Your task to perform on an android device: Clear the shopping cart on ebay. Image 0: 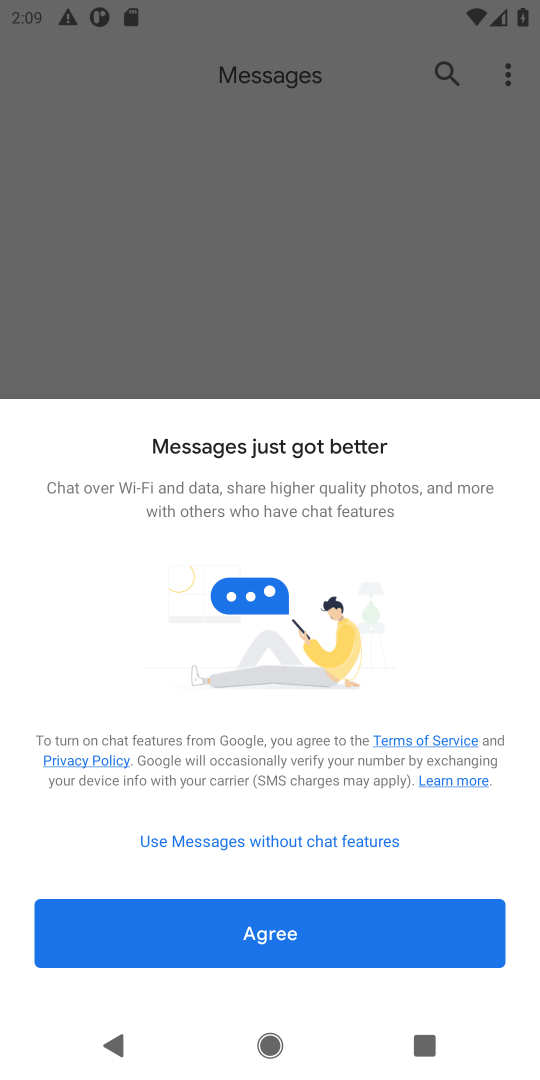
Step 0: press home button
Your task to perform on an android device: Clear the shopping cart on ebay. Image 1: 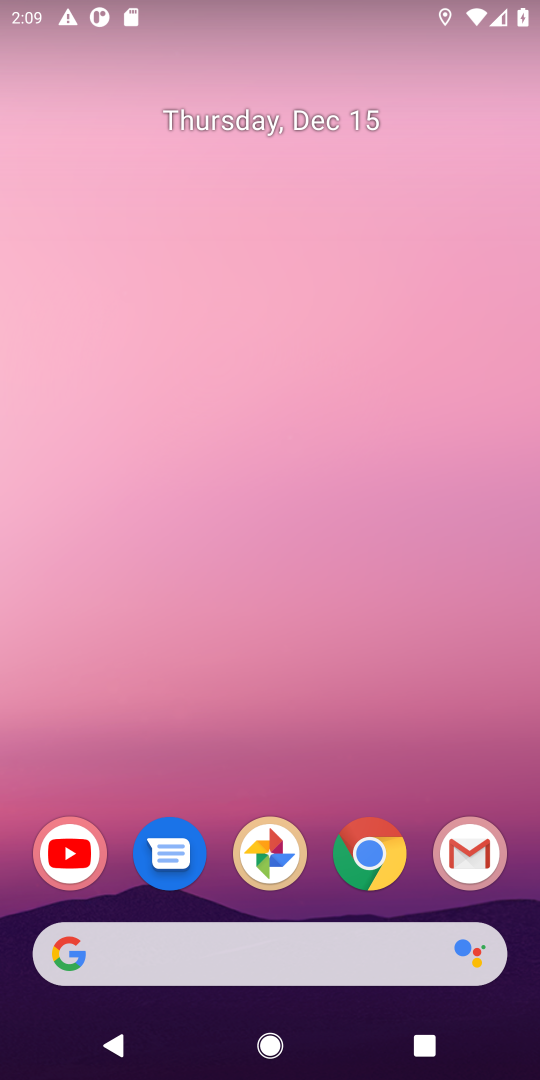
Step 1: drag from (337, 863) to (282, 410)
Your task to perform on an android device: Clear the shopping cart on ebay. Image 2: 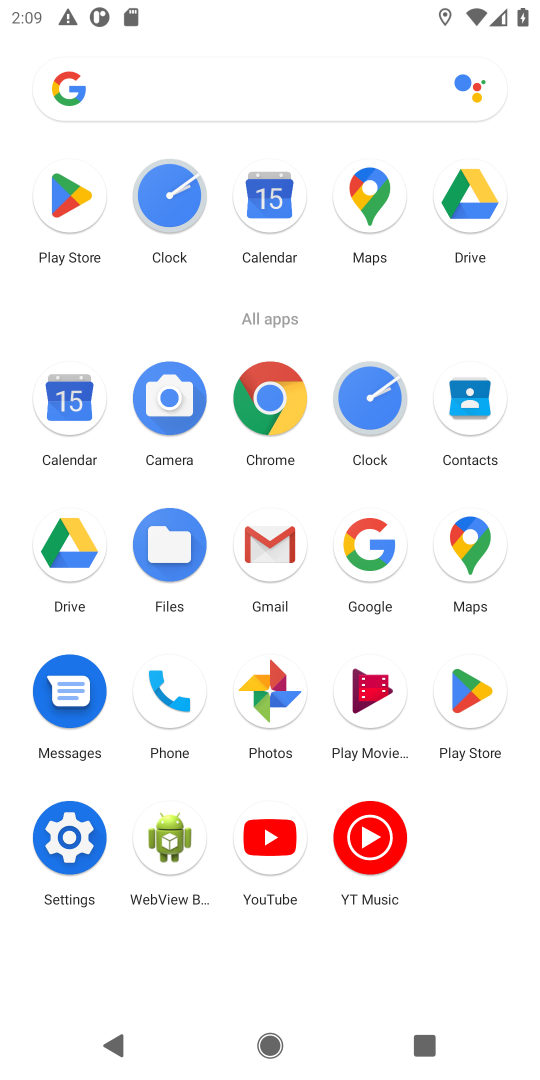
Step 2: click (359, 572)
Your task to perform on an android device: Clear the shopping cart on ebay. Image 3: 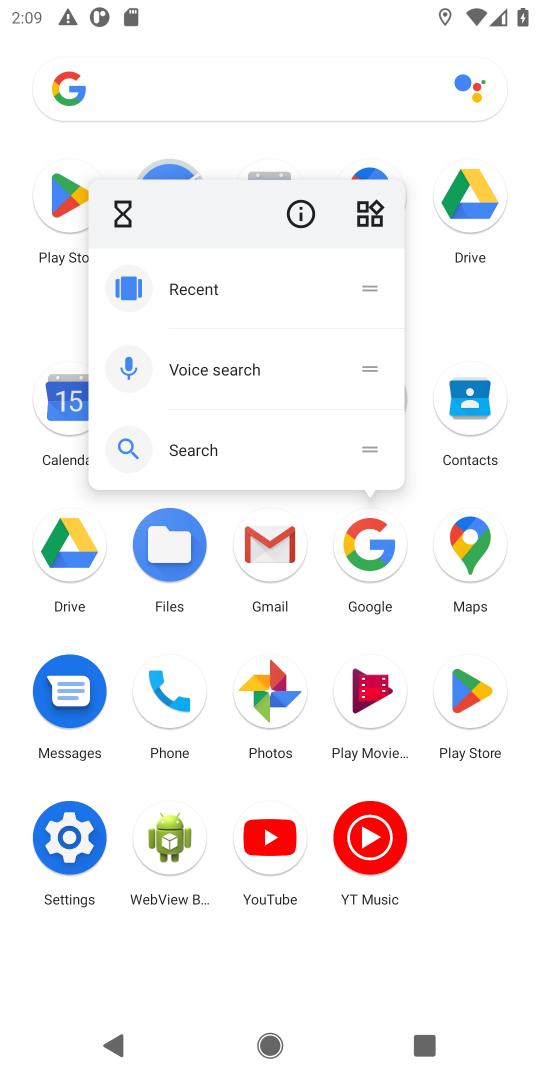
Step 3: click (381, 539)
Your task to perform on an android device: Clear the shopping cart on ebay. Image 4: 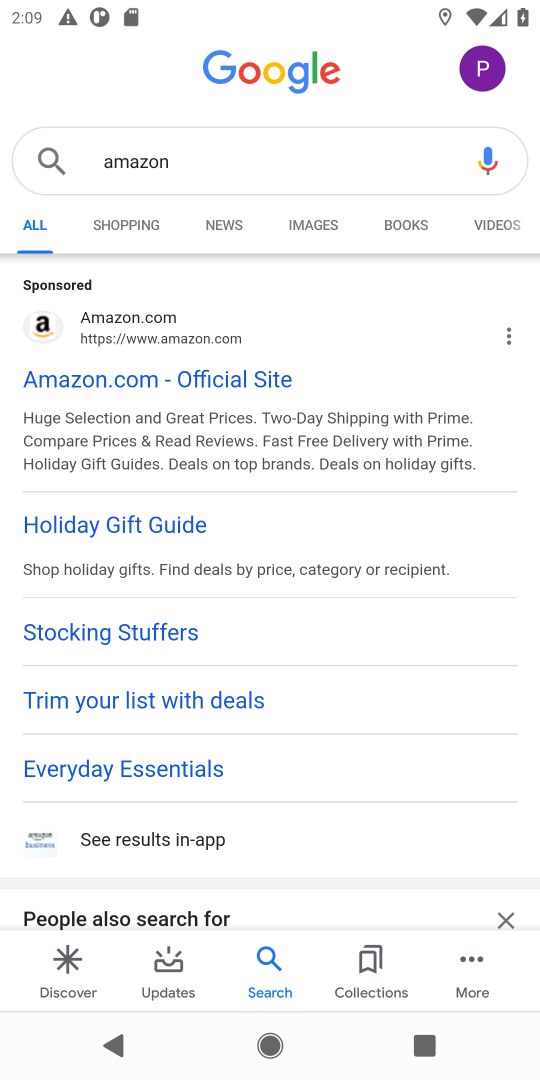
Step 4: click (133, 174)
Your task to perform on an android device: Clear the shopping cart on ebay. Image 5: 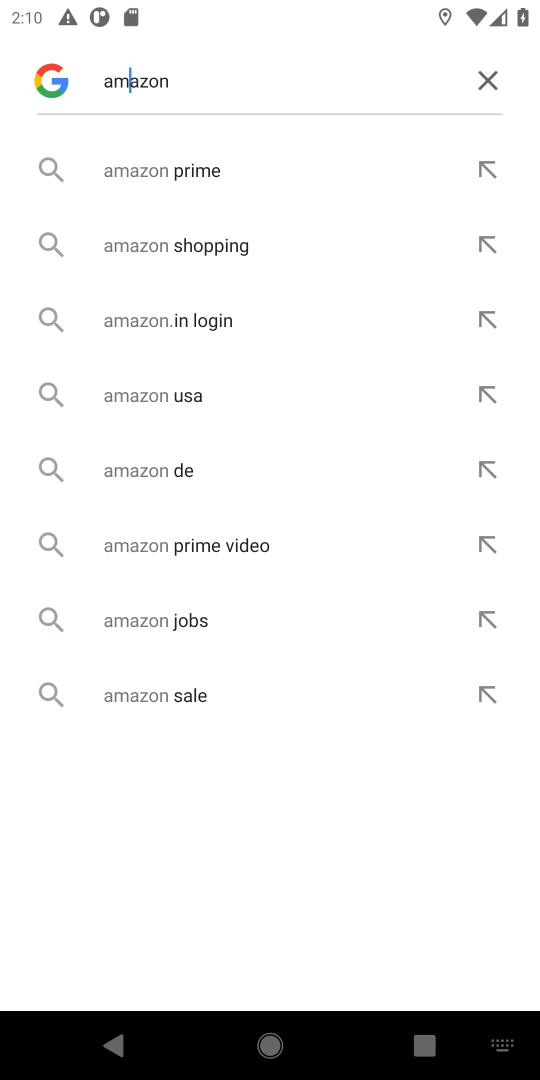
Step 5: click (502, 83)
Your task to perform on an android device: Clear the shopping cart on ebay. Image 6: 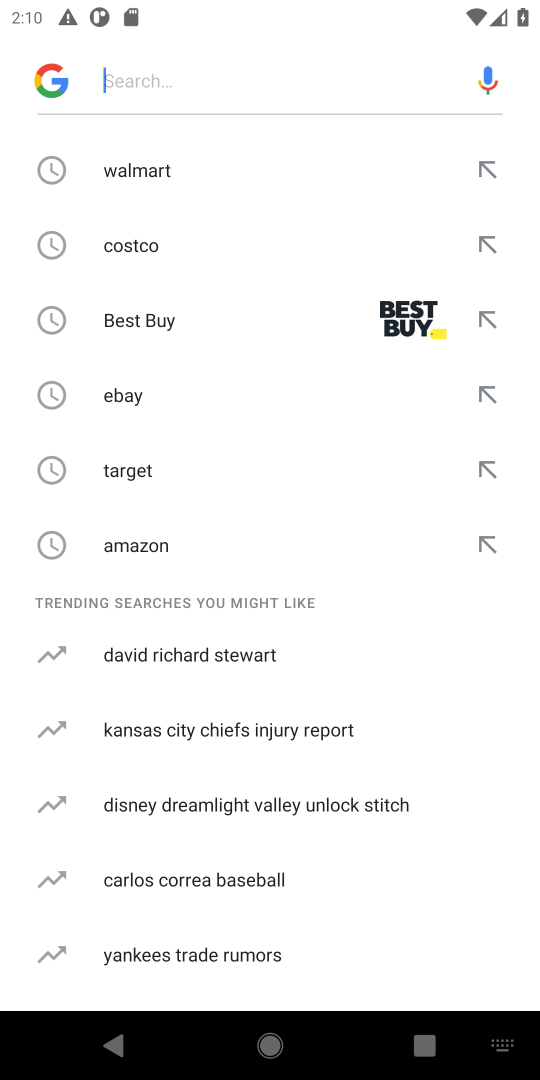
Step 6: click (120, 393)
Your task to perform on an android device: Clear the shopping cart on ebay. Image 7: 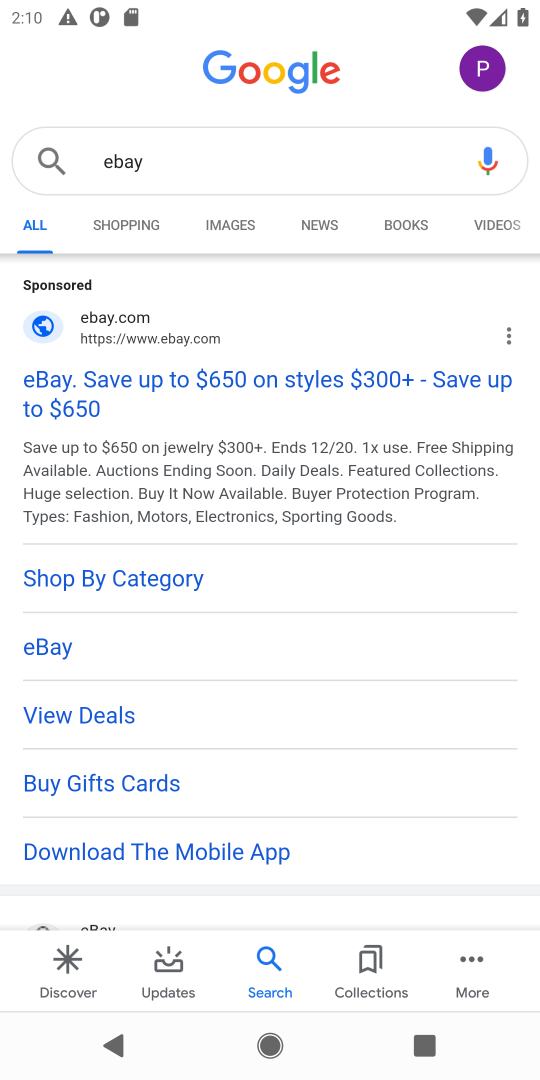
Step 7: drag from (161, 814) to (170, 378)
Your task to perform on an android device: Clear the shopping cart on ebay. Image 8: 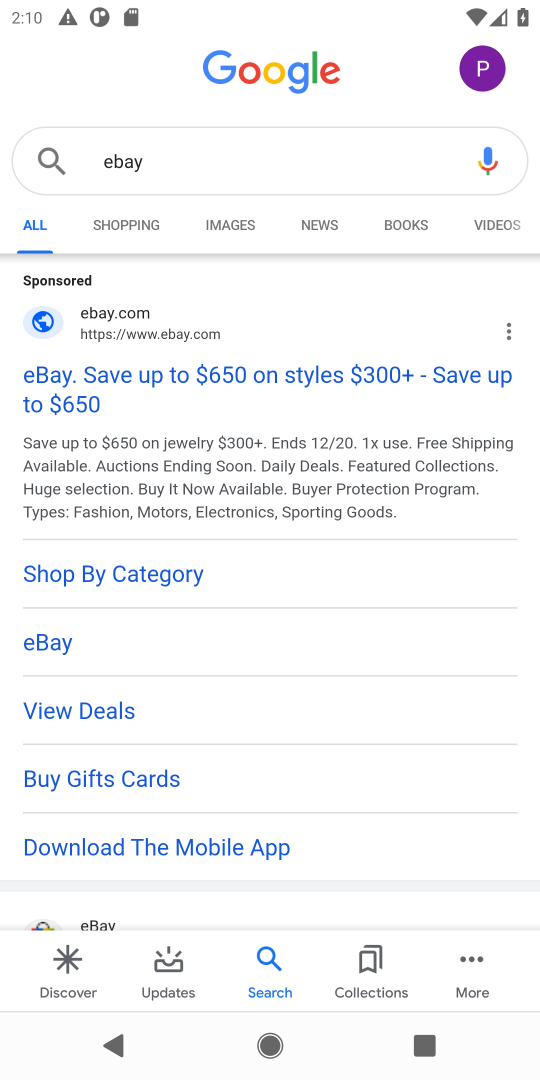
Step 8: drag from (354, 839) to (361, 412)
Your task to perform on an android device: Clear the shopping cart on ebay. Image 9: 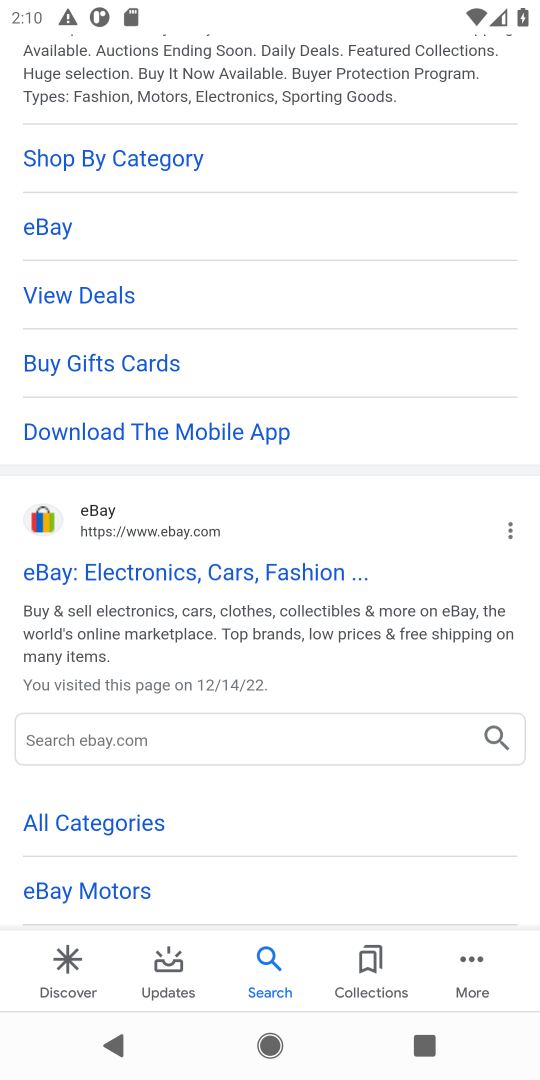
Step 9: click (130, 561)
Your task to perform on an android device: Clear the shopping cart on ebay. Image 10: 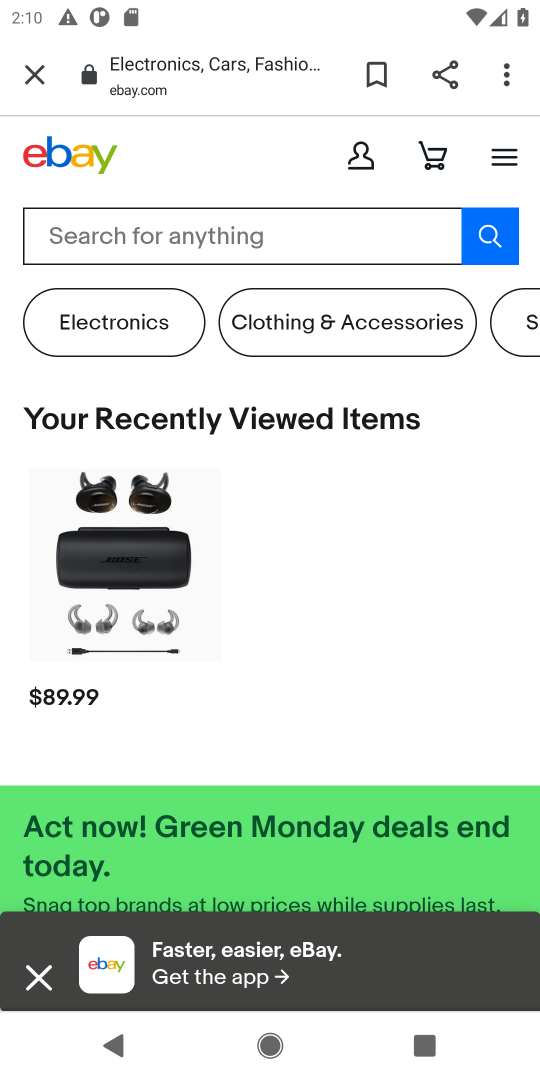
Step 10: task complete